Your task to perform on an android device: Go to Amazon Image 0: 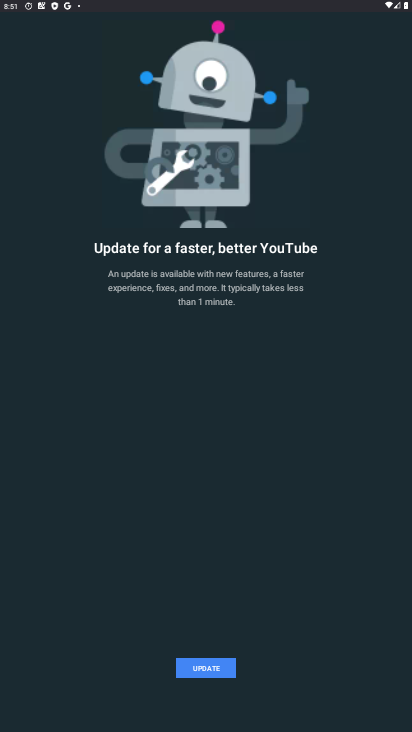
Step 0: press home button
Your task to perform on an android device: Go to Amazon Image 1: 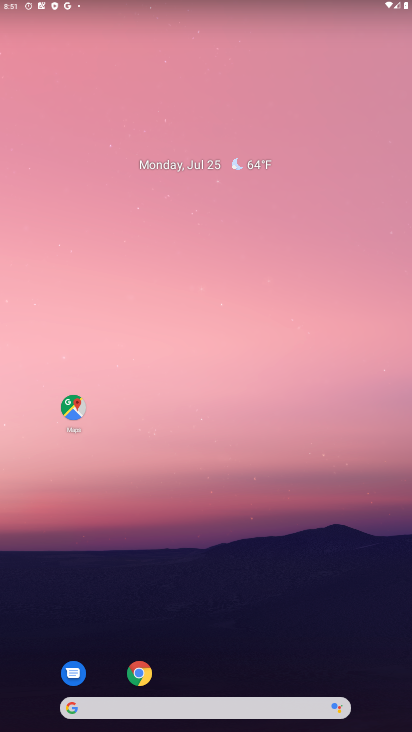
Step 1: drag from (181, 681) to (215, 356)
Your task to perform on an android device: Go to Amazon Image 2: 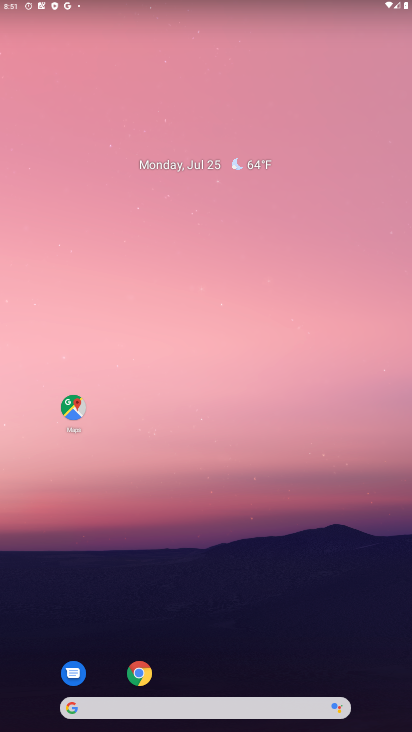
Step 2: drag from (200, 666) to (208, 220)
Your task to perform on an android device: Go to Amazon Image 3: 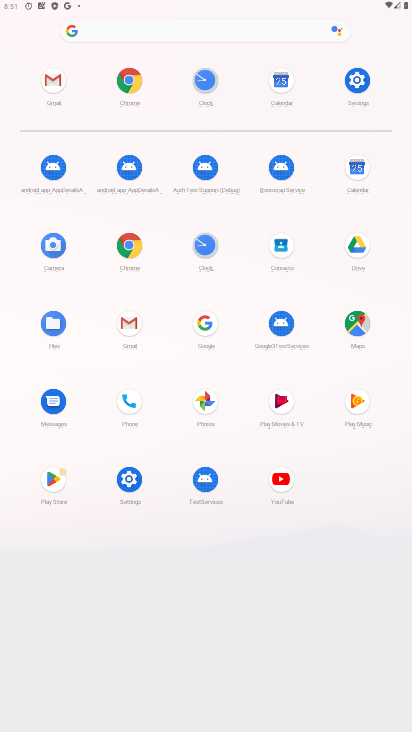
Step 3: click (125, 80)
Your task to perform on an android device: Go to Amazon Image 4: 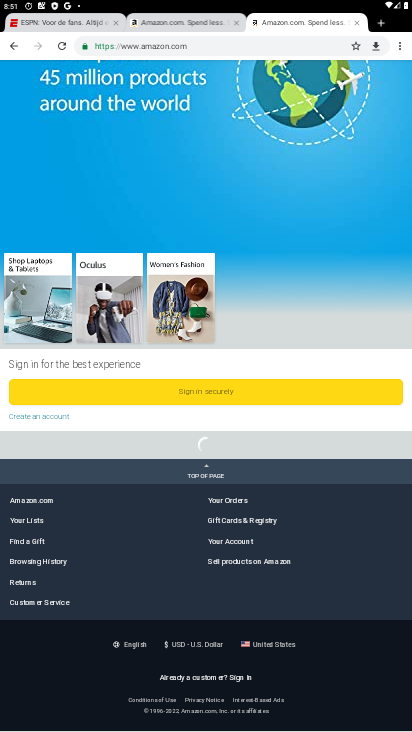
Step 4: task complete